Your task to perform on an android device: Empty the shopping cart on amazon. Image 0: 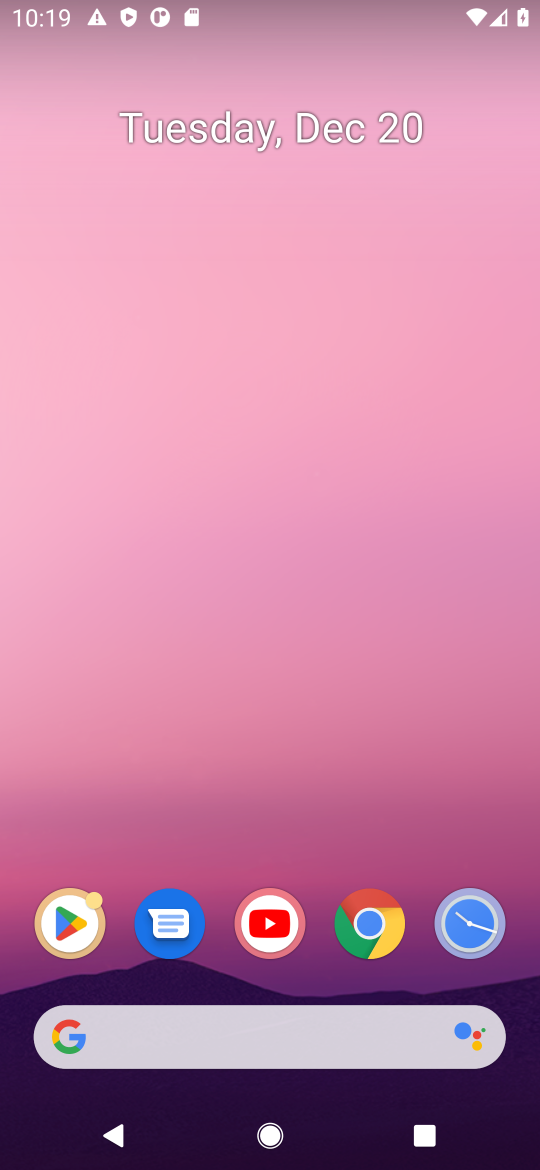
Step 0: click (364, 942)
Your task to perform on an android device: Empty the shopping cart on amazon. Image 1: 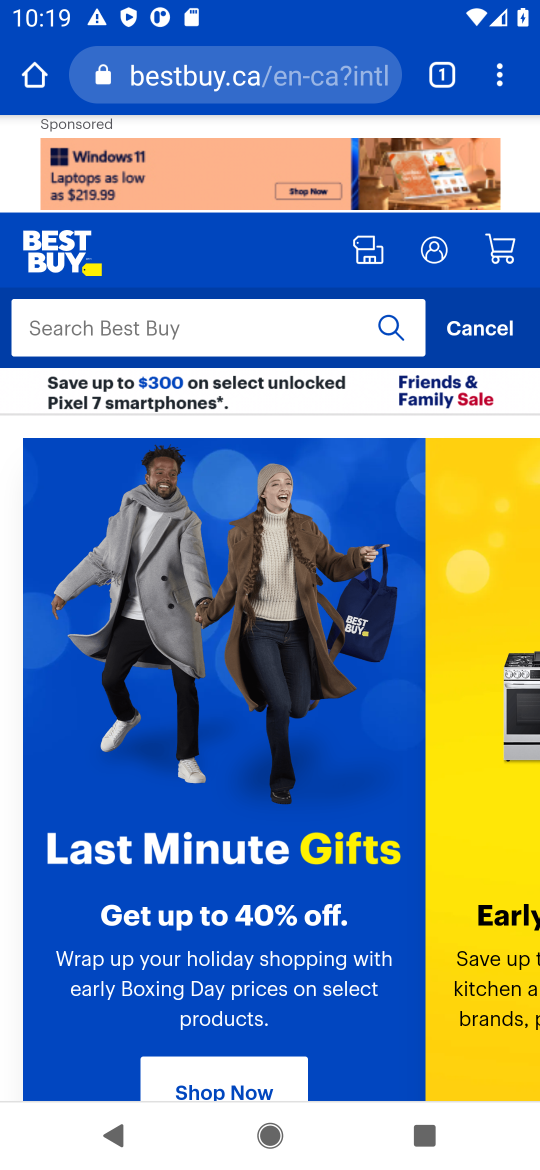
Step 1: click (259, 88)
Your task to perform on an android device: Empty the shopping cart on amazon. Image 2: 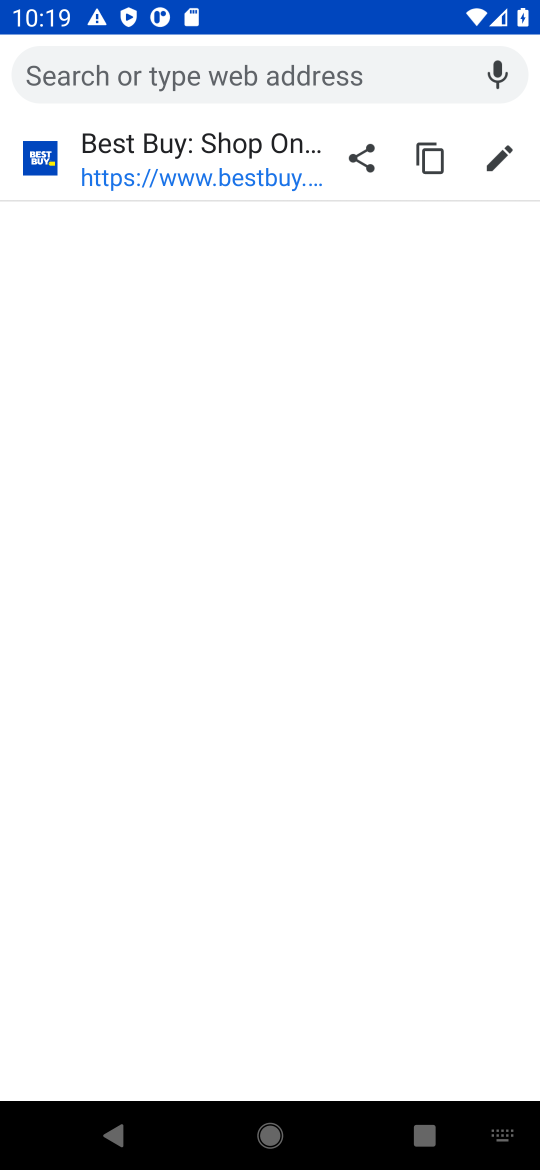
Step 2: type "amazon"
Your task to perform on an android device: Empty the shopping cart on amazon. Image 3: 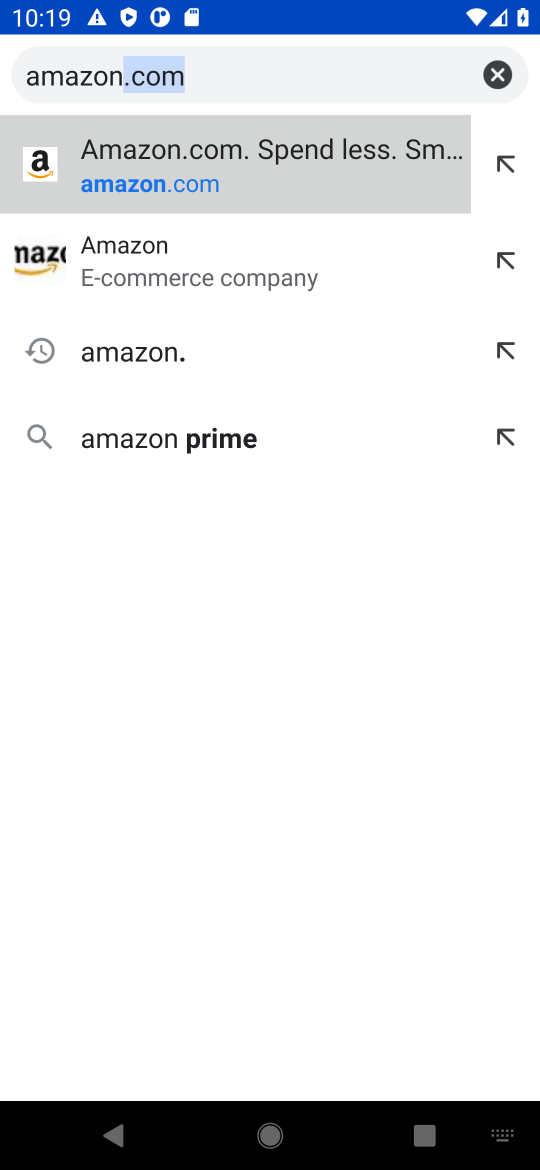
Step 3: click (100, 158)
Your task to perform on an android device: Empty the shopping cart on amazon. Image 4: 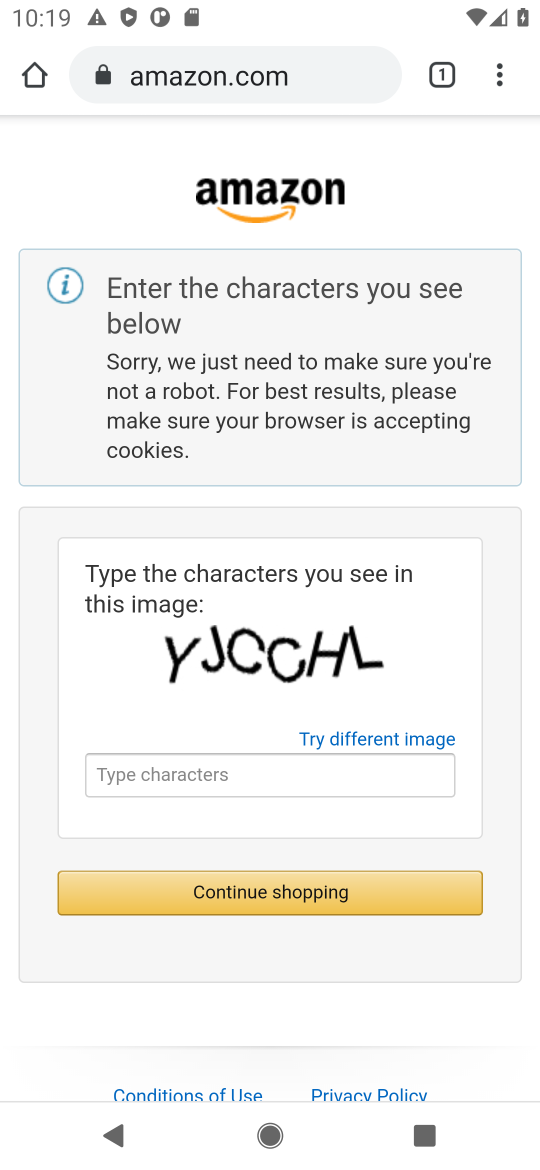
Step 4: click (311, 782)
Your task to perform on an android device: Empty the shopping cart on amazon. Image 5: 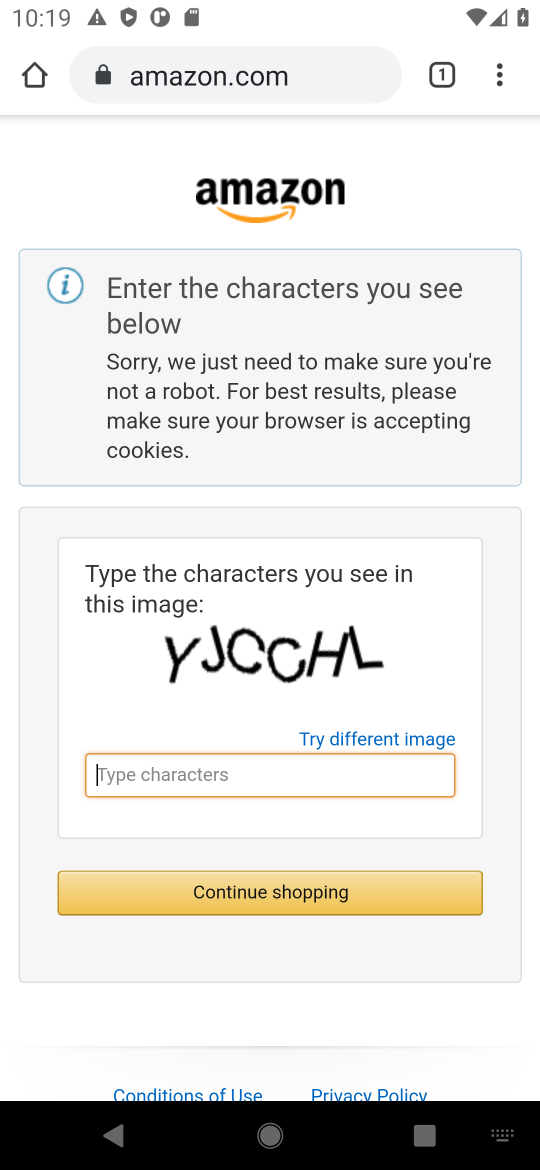
Step 5: type "YJCCHL"
Your task to perform on an android device: Empty the shopping cart on amazon. Image 6: 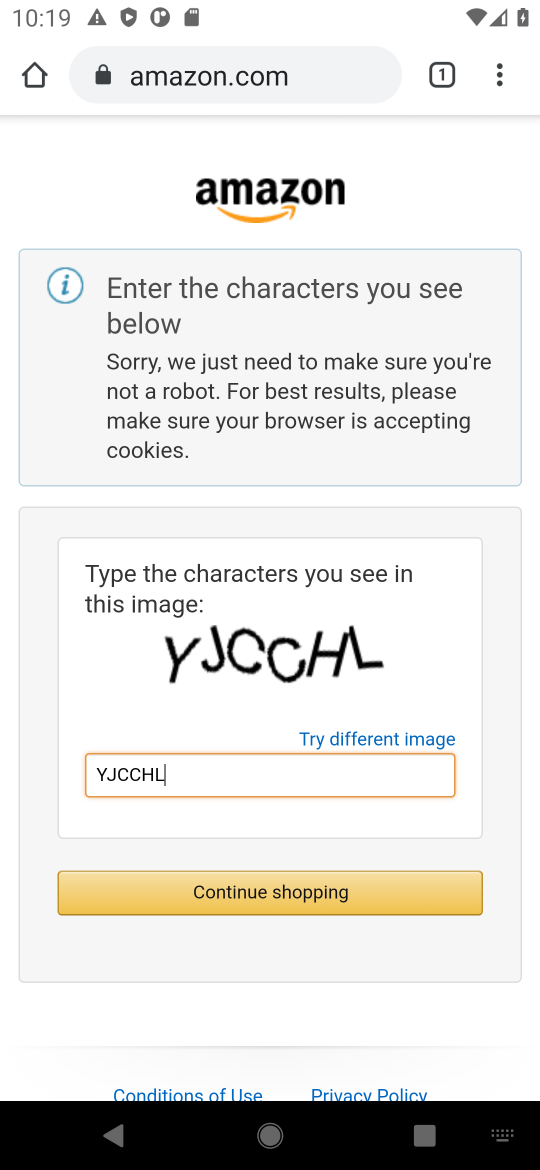
Step 6: click (278, 893)
Your task to perform on an android device: Empty the shopping cart on amazon. Image 7: 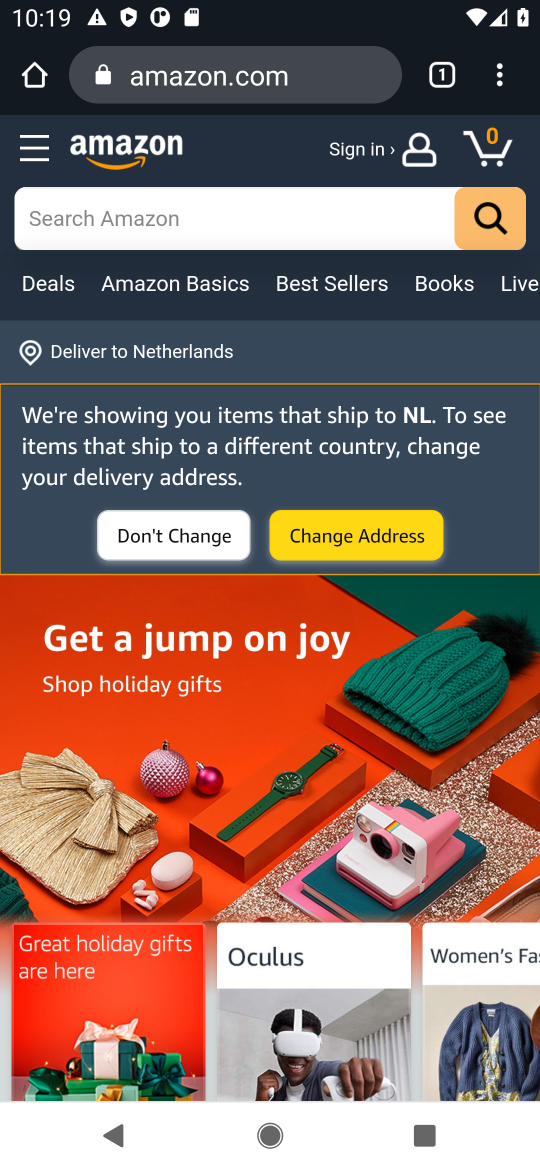
Step 7: click (216, 218)
Your task to perform on an android device: Empty the shopping cart on amazon. Image 8: 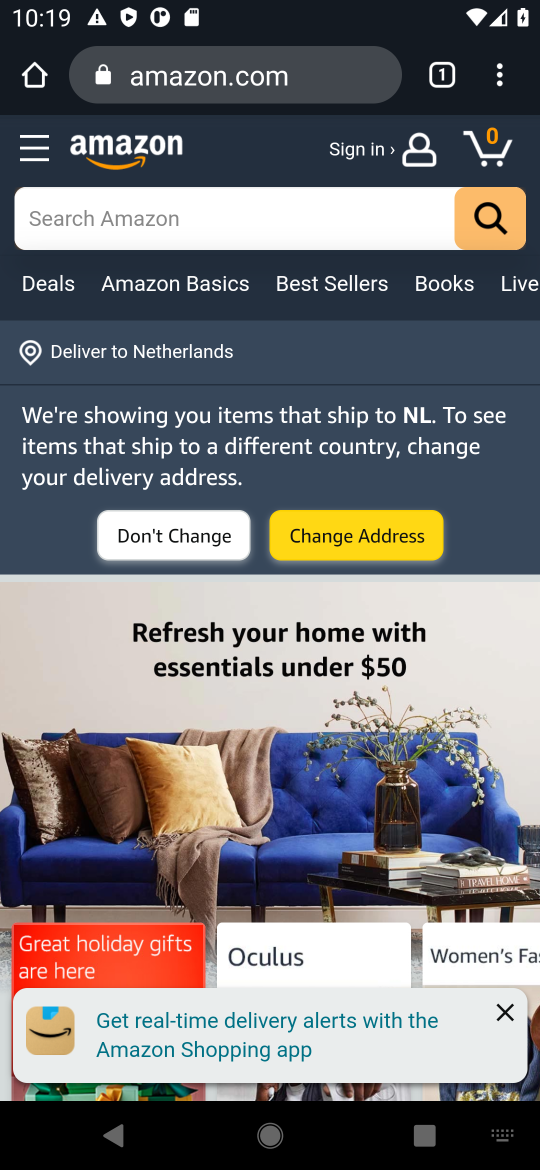
Step 8: click (494, 154)
Your task to perform on an android device: Empty the shopping cart on amazon. Image 9: 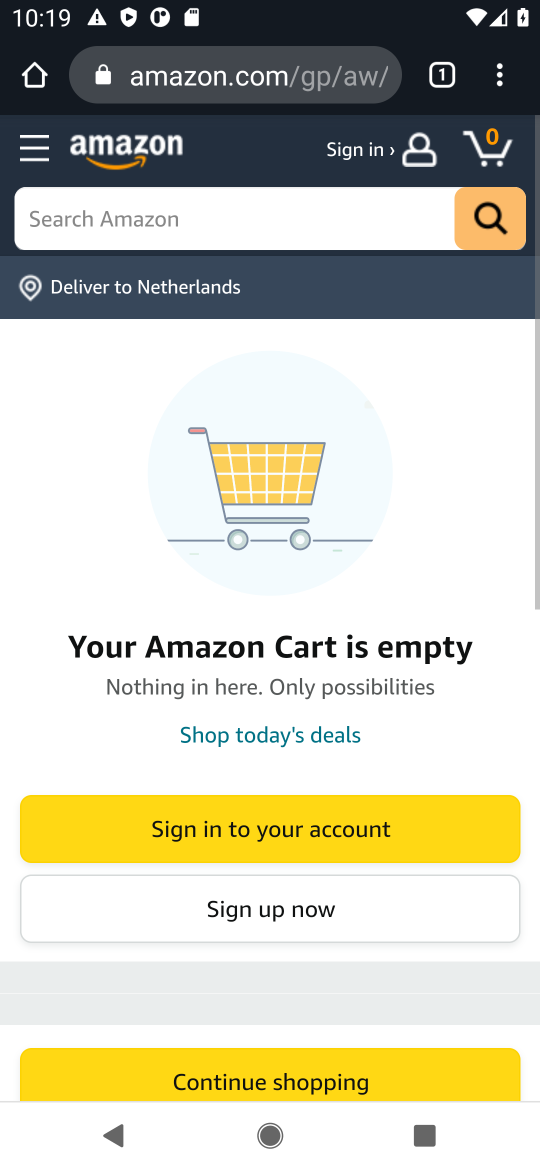
Step 9: task complete